Your task to perform on an android device: Open Maps and search for coffee Image 0: 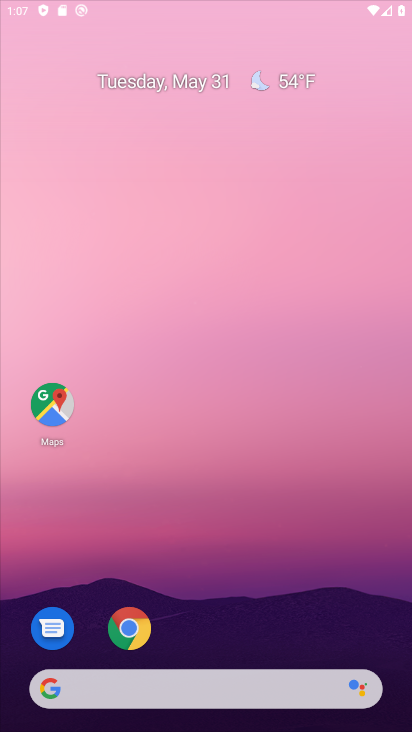
Step 0: press home button
Your task to perform on an android device: Open Maps and search for coffee Image 1: 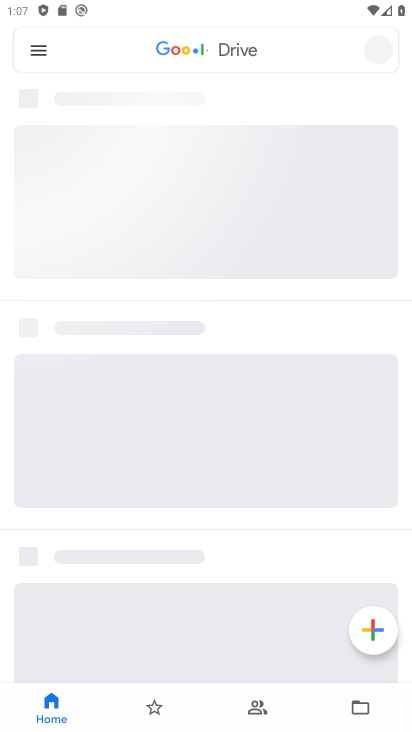
Step 1: press home button
Your task to perform on an android device: Open Maps and search for coffee Image 2: 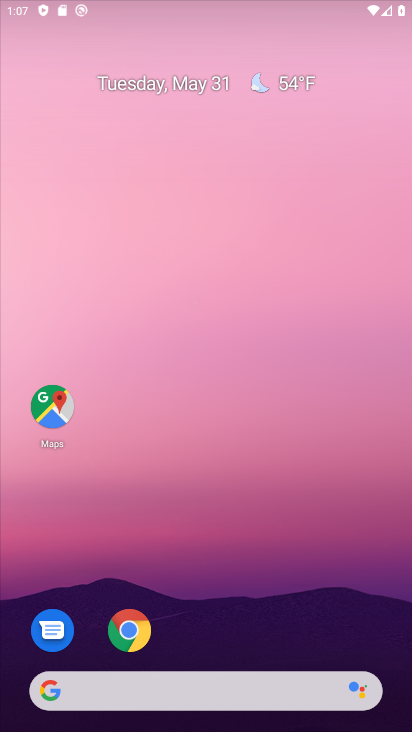
Step 2: press home button
Your task to perform on an android device: Open Maps and search for coffee Image 3: 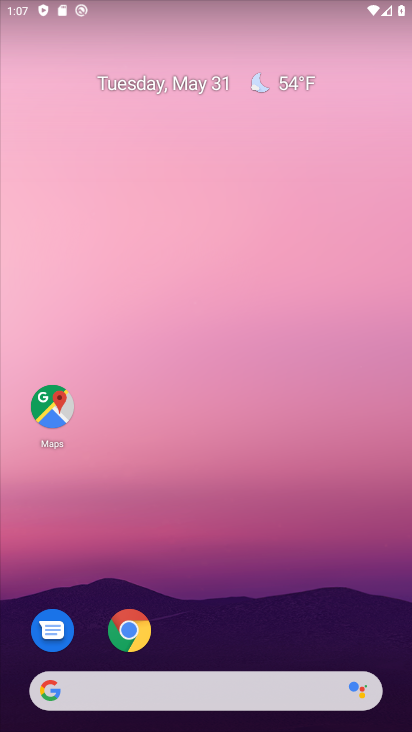
Step 3: press home button
Your task to perform on an android device: Open Maps and search for coffee Image 4: 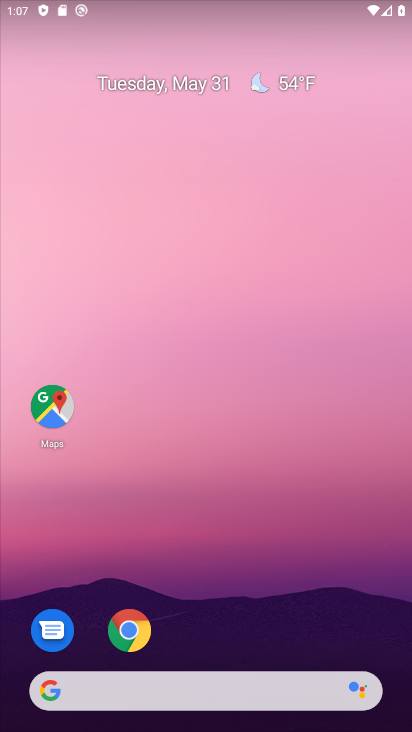
Step 4: drag from (209, 619) to (240, 47)
Your task to perform on an android device: Open Maps and search for coffee Image 5: 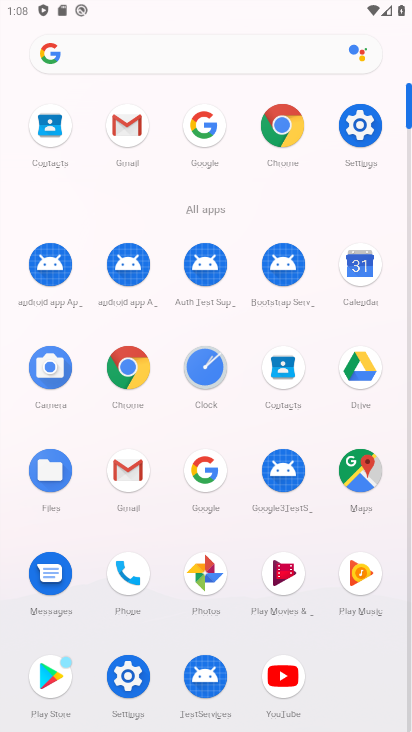
Step 5: click (363, 480)
Your task to perform on an android device: Open Maps and search for coffee Image 6: 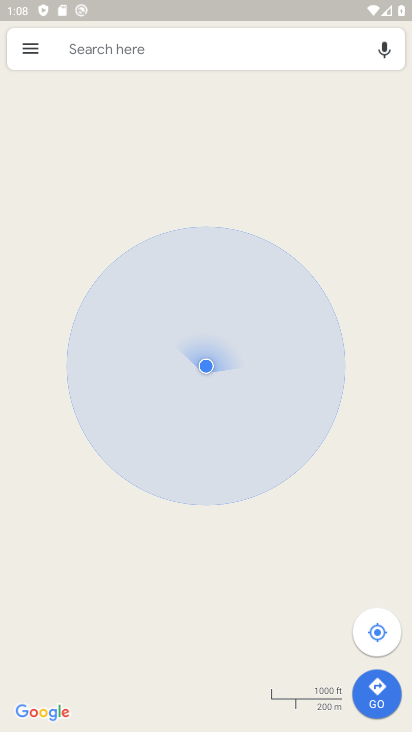
Step 6: click (177, 43)
Your task to perform on an android device: Open Maps and search for coffee Image 7: 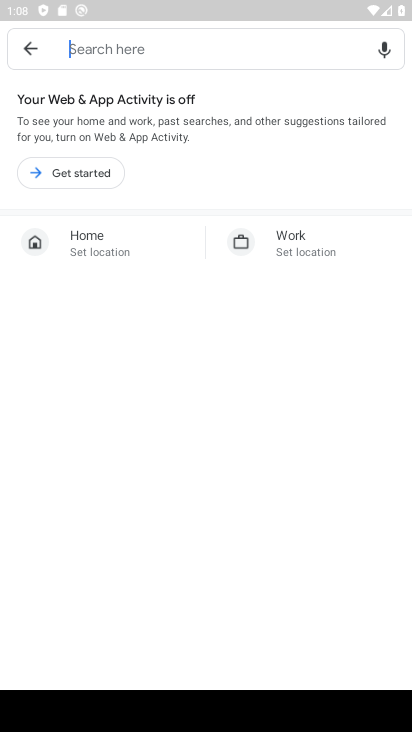
Step 7: click (92, 171)
Your task to perform on an android device: Open Maps and search for coffee Image 8: 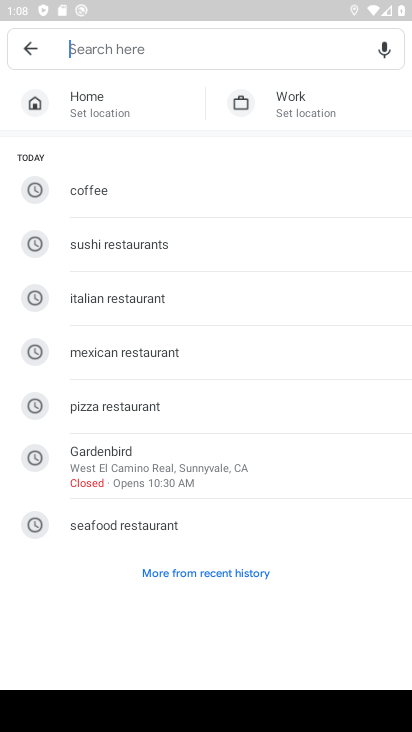
Step 8: click (122, 182)
Your task to perform on an android device: Open Maps and search for coffee Image 9: 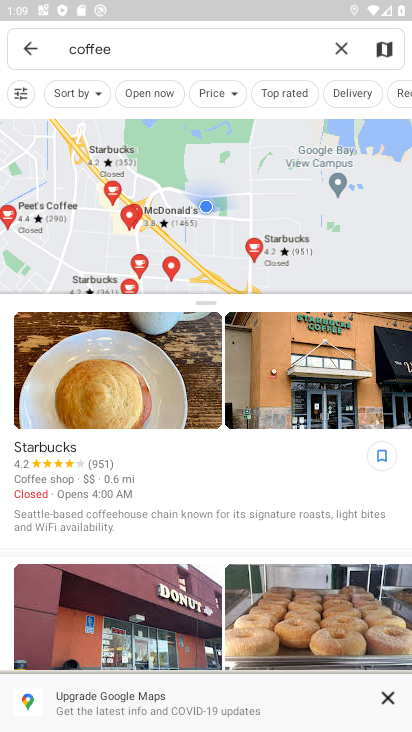
Step 9: task complete